Your task to perform on an android device: Go to Amazon Image 0: 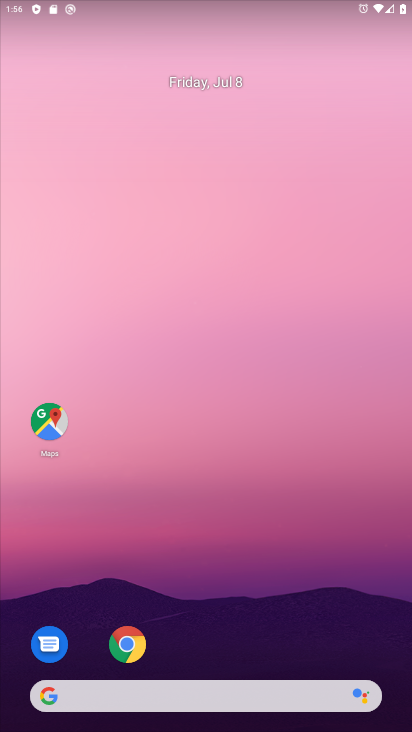
Step 0: drag from (141, 74) to (135, 35)
Your task to perform on an android device: Go to Amazon Image 1: 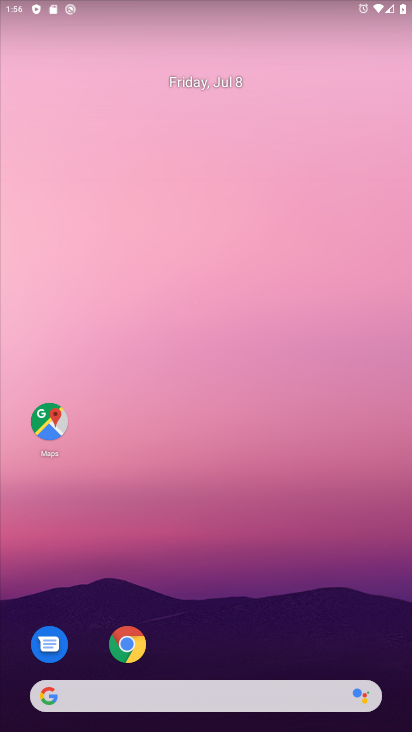
Step 1: drag from (240, 695) to (282, 96)
Your task to perform on an android device: Go to Amazon Image 2: 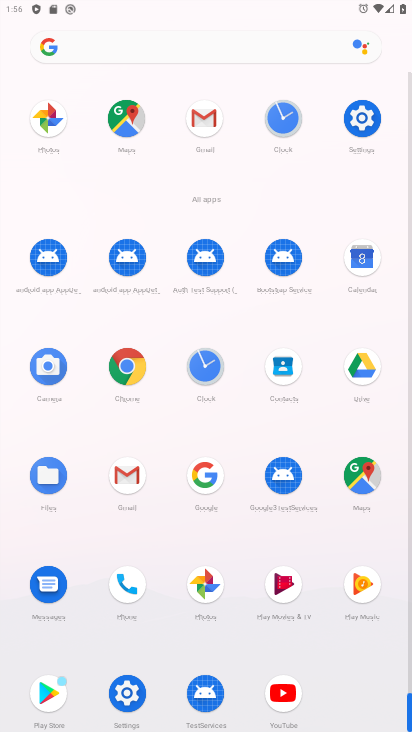
Step 2: click (122, 367)
Your task to perform on an android device: Go to Amazon Image 3: 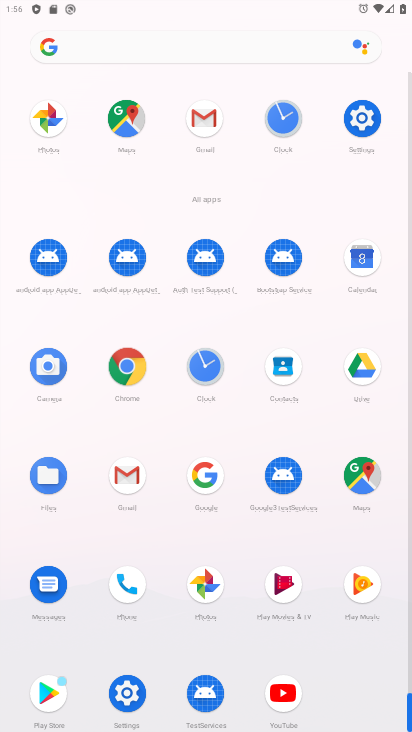
Step 3: click (130, 362)
Your task to perform on an android device: Go to Amazon Image 4: 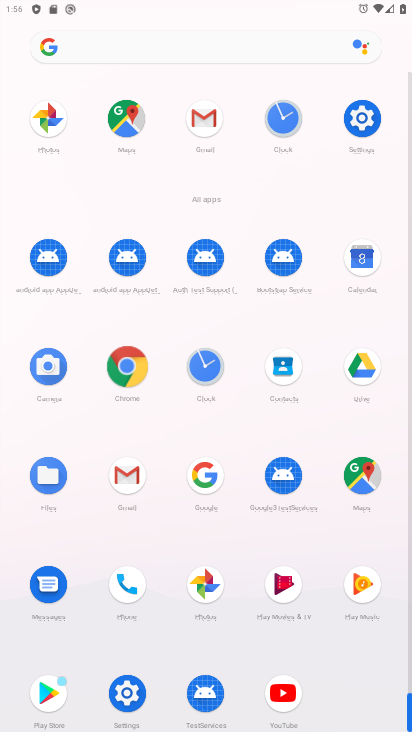
Step 4: click (135, 359)
Your task to perform on an android device: Go to Amazon Image 5: 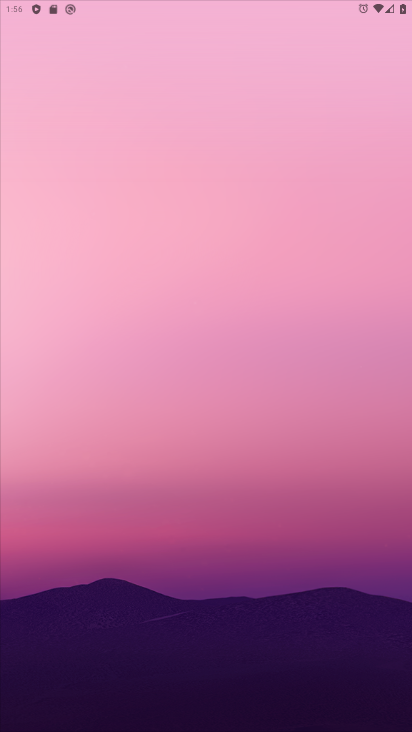
Step 5: click (136, 359)
Your task to perform on an android device: Go to Amazon Image 6: 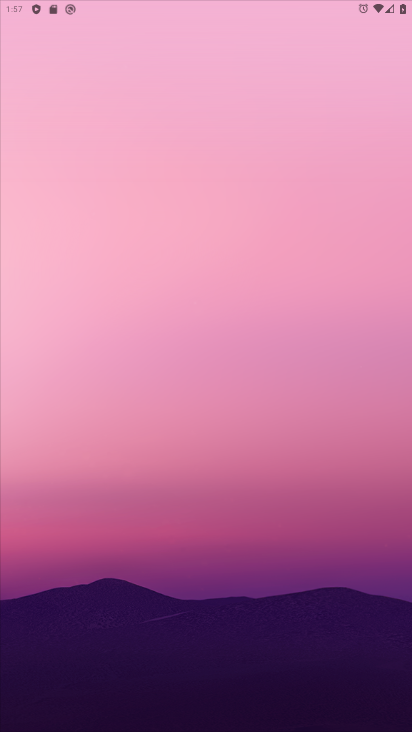
Step 6: click (131, 364)
Your task to perform on an android device: Go to Amazon Image 7: 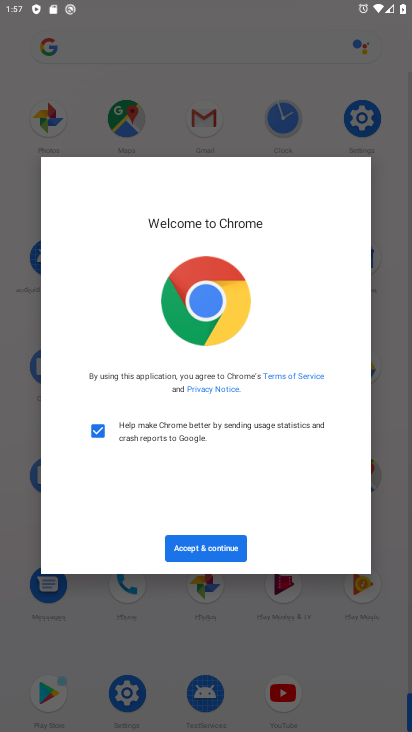
Step 7: click (222, 545)
Your task to perform on an android device: Go to Amazon Image 8: 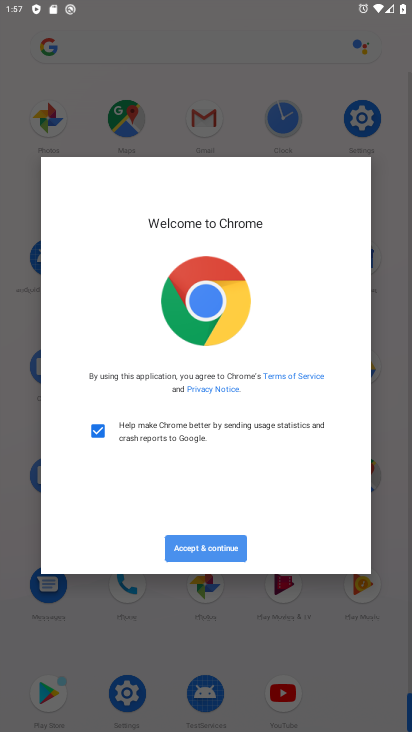
Step 8: click (226, 545)
Your task to perform on an android device: Go to Amazon Image 9: 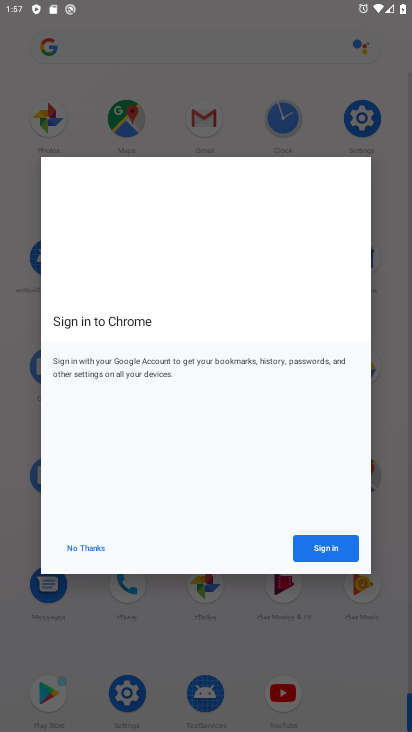
Step 9: click (227, 545)
Your task to perform on an android device: Go to Amazon Image 10: 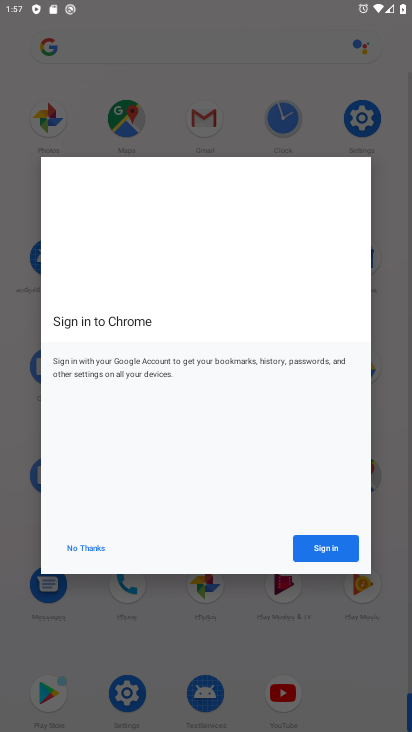
Step 10: click (325, 555)
Your task to perform on an android device: Go to Amazon Image 11: 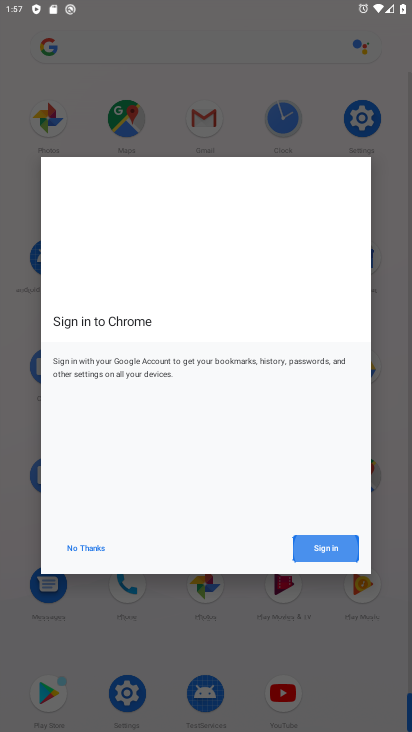
Step 11: click (325, 556)
Your task to perform on an android device: Go to Amazon Image 12: 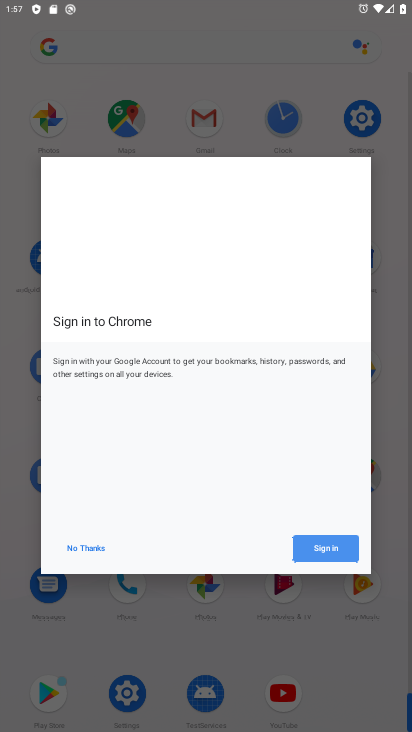
Step 12: click (325, 557)
Your task to perform on an android device: Go to Amazon Image 13: 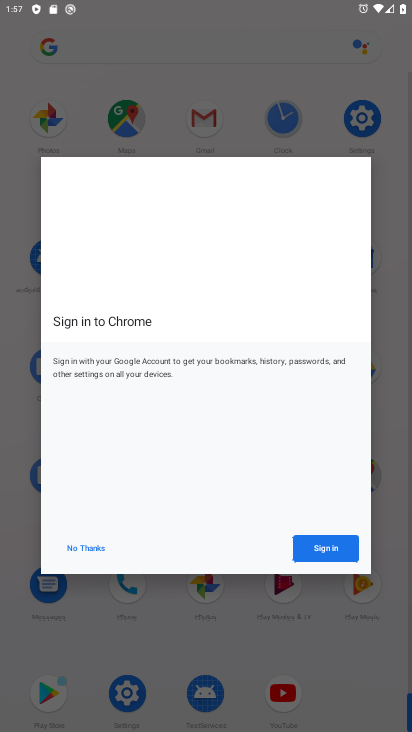
Step 13: click (326, 557)
Your task to perform on an android device: Go to Amazon Image 14: 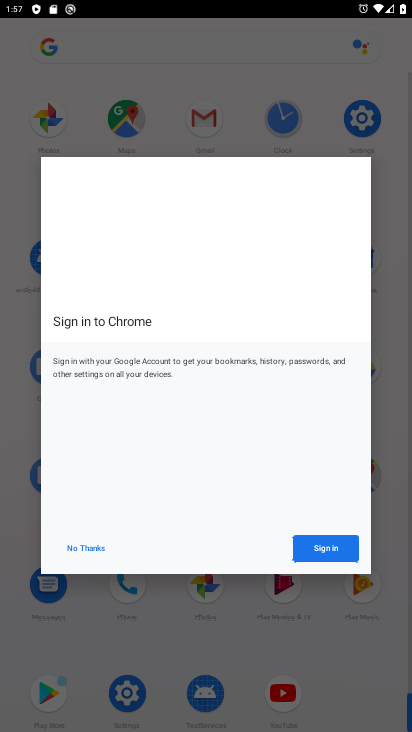
Step 14: click (330, 553)
Your task to perform on an android device: Go to Amazon Image 15: 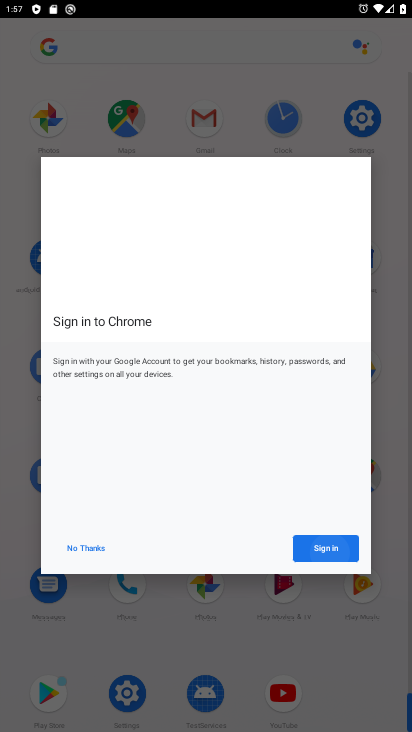
Step 15: click (330, 553)
Your task to perform on an android device: Go to Amazon Image 16: 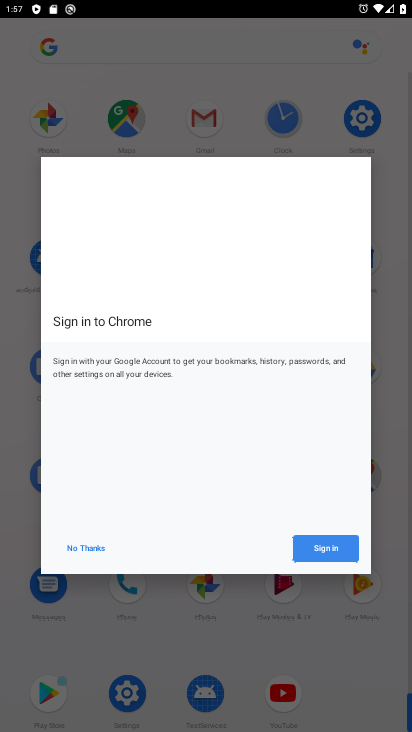
Step 16: click (330, 553)
Your task to perform on an android device: Go to Amazon Image 17: 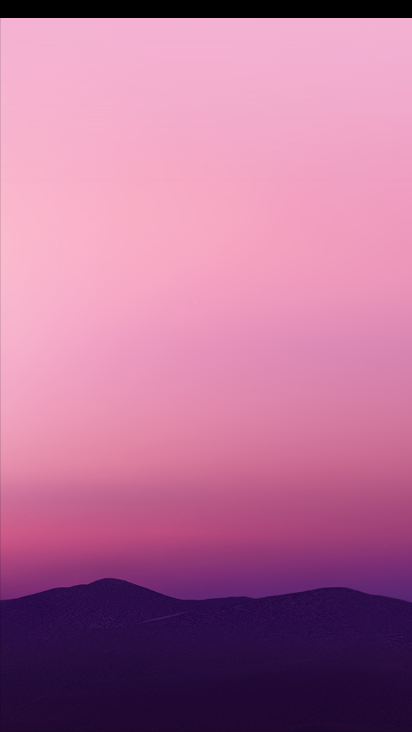
Step 17: click (339, 540)
Your task to perform on an android device: Go to Amazon Image 18: 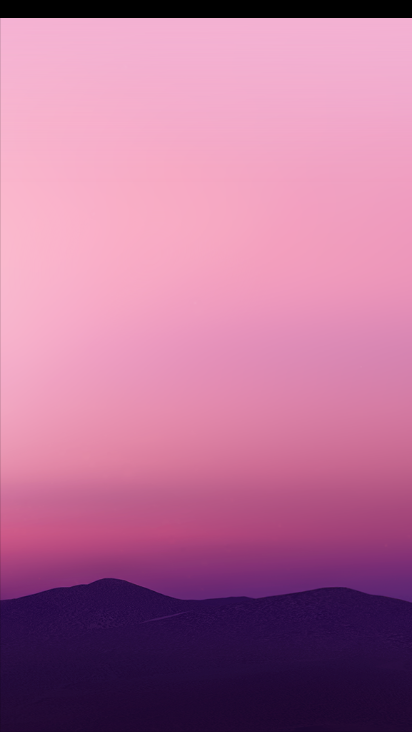
Step 18: click (339, 540)
Your task to perform on an android device: Go to Amazon Image 19: 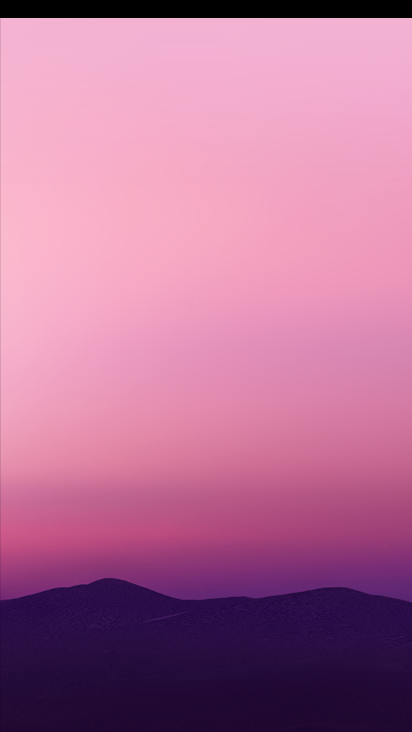
Step 19: task complete